Your task to perform on an android device: turn on data saver in the chrome app Image 0: 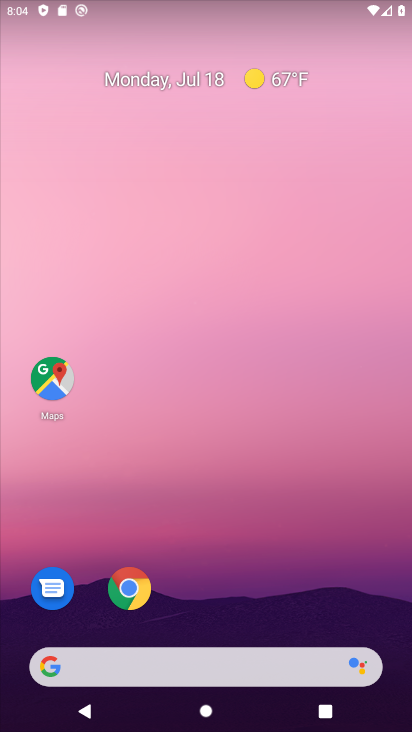
Step 0: drag from (244, 632) to (228, 247)
Your task to perform on an android device: turn on data saver in the chrome app Image 1: 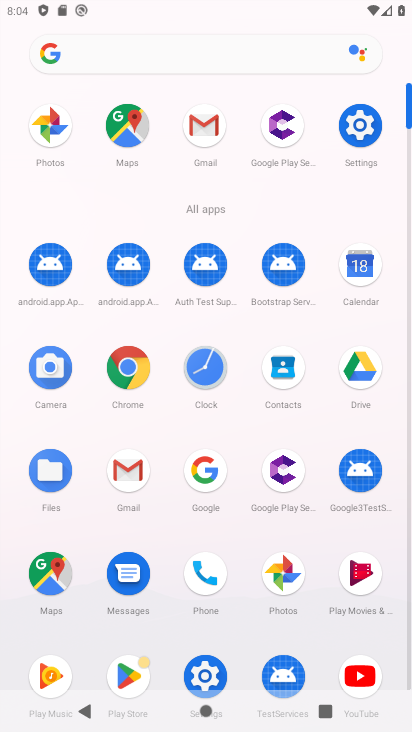
Step 1: click (125, 372)
Your task to perform on an android device: turn on data saver in the chrome app Image 2: 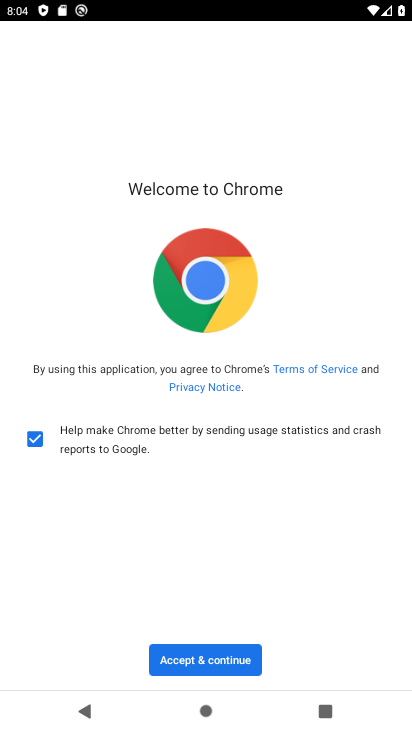
Step 2: click (185, 651)
Your task to perform on an android device: turn on data saver in the chrome app Image 3: 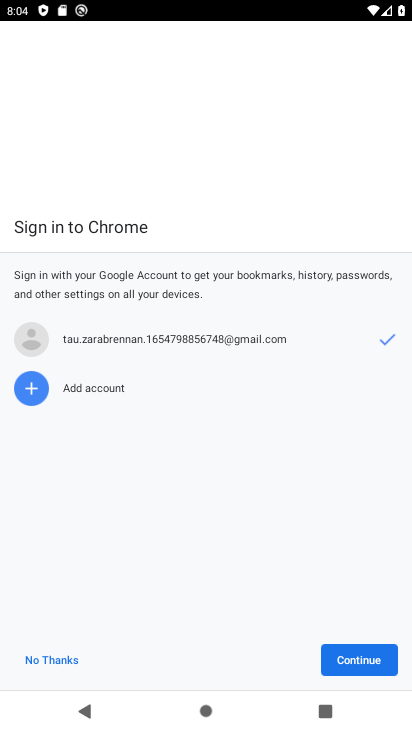
Step 3: click (361, 665)
Your task to perform on an android device: turn on data saver in the chrome app Image 4: 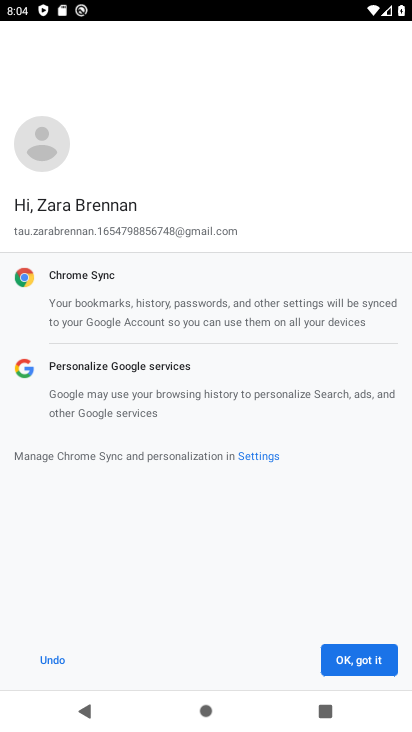
Step 4: click (361, 665)
Your task to perform on an android device: turn on data saver in the chrome app Image 5: 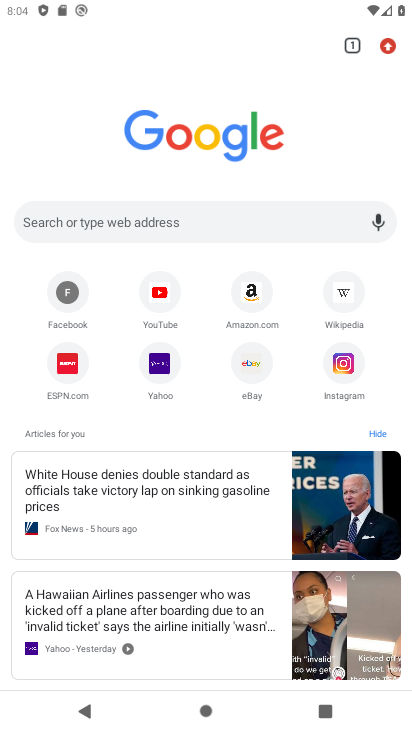
Step 5: click (386, 49)
Your task to perform on an android device: turn on data saver in the chrome app Image 6: 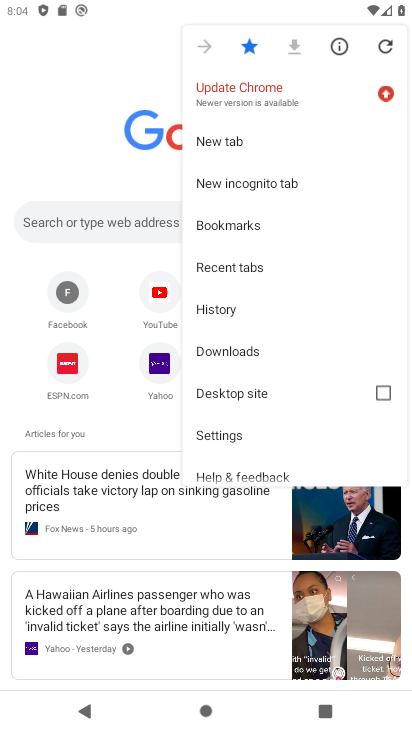
Step 6: click (226, 431)
Your task to perform on an android device: turn on data saver in the chrome app Image 7: 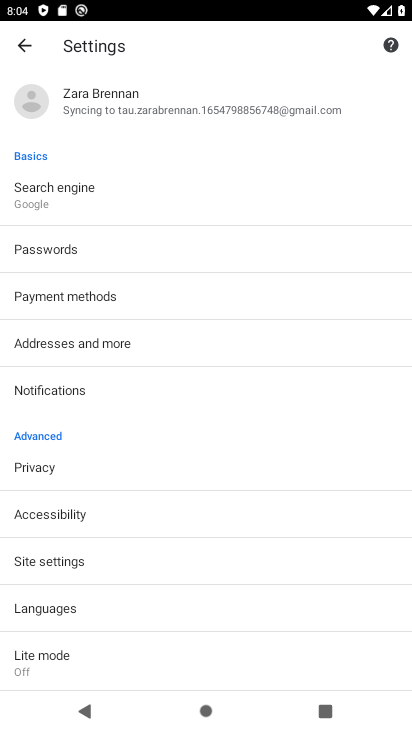
Step 7: click (123, 660)
Your task to perform on an android device: turn on data saver in the chrome app Image 8: 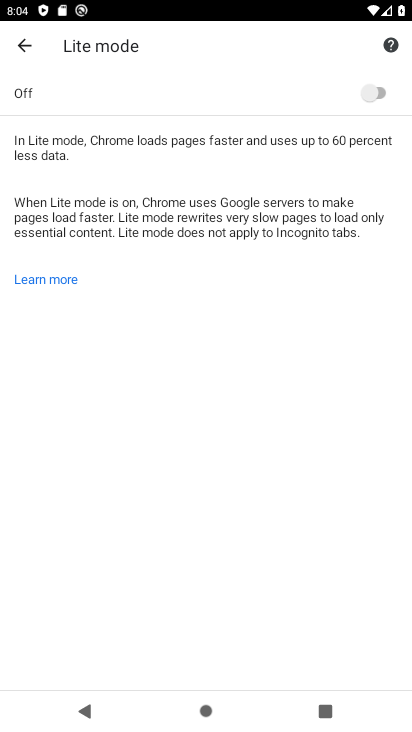
Step 8: click (365, 101)
Your task to perform on an android device: turn on data saver in the chrome app Image 9: 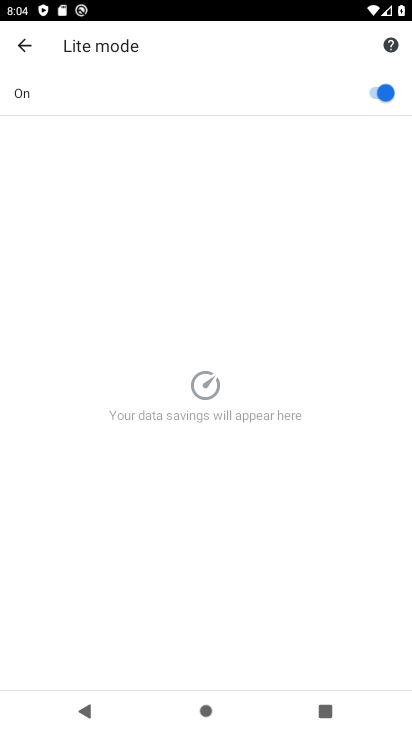
Step 9: task complete